Your task to perform on an android device: Go to Wikipedia Image 0: 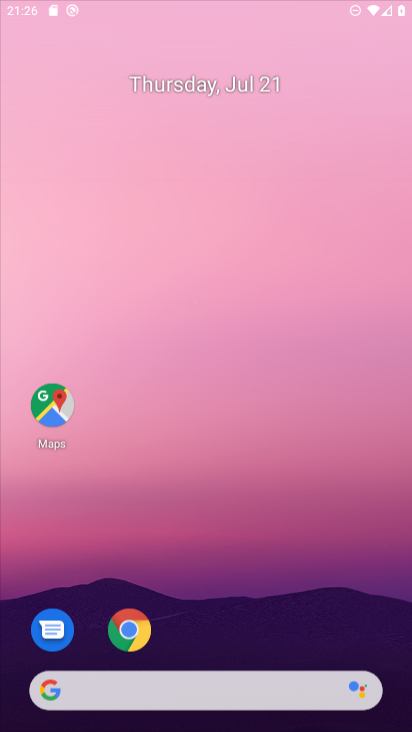
Step 0: drag from (334, 561) to (326, 54)
Your task to perform on an android device: Go to Wikipedia Image 1: 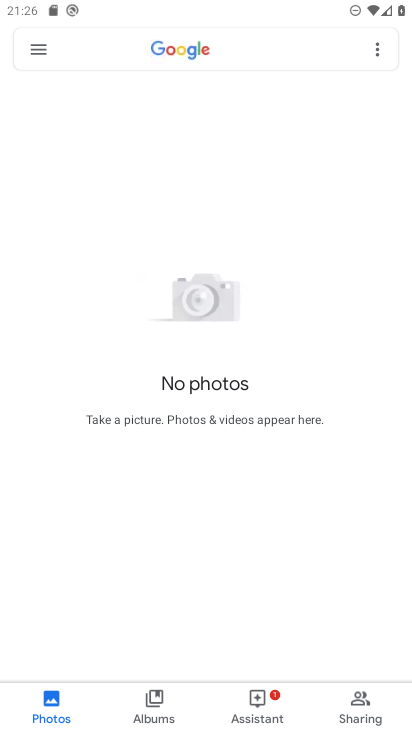
Step 1: press home button
Your task to perform on an android device: Go to Wikipedia Image 2: 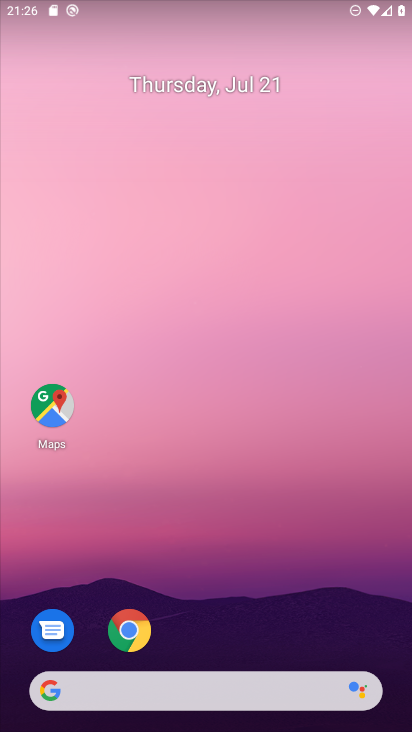
Step 2: click (125, 626)
Your task to perform on an android device: Go to Wikipedia Image 3: 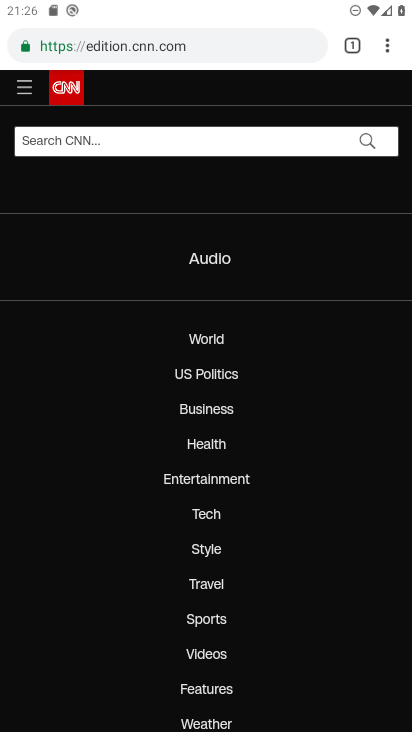
Step 3: click (228, 53)
Your task to perform on an android device: Go to Wikipedia Image 4: 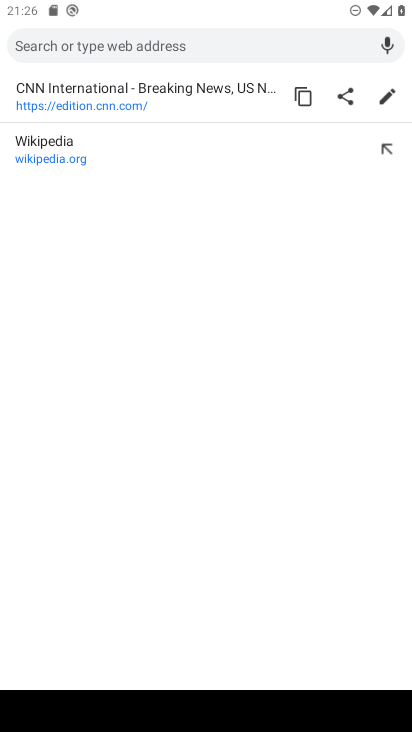
Step 4: type "wikipdeia"
Your task to perform on an android device: Go to Wikipedia Image 5: 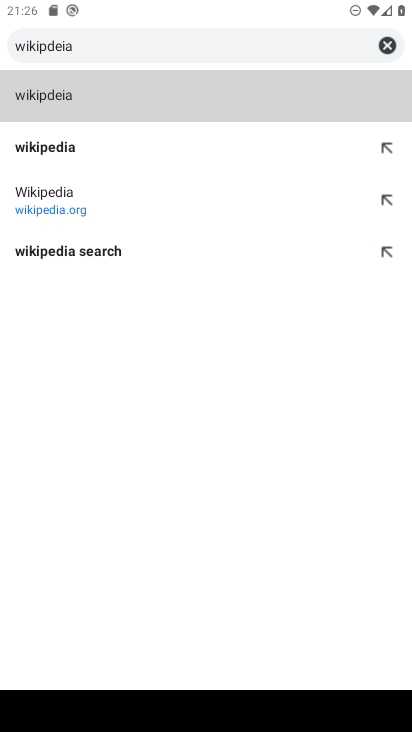
Step 5: type "3"
Your task to perform on an android device: Go to Wikipedia Image 6: 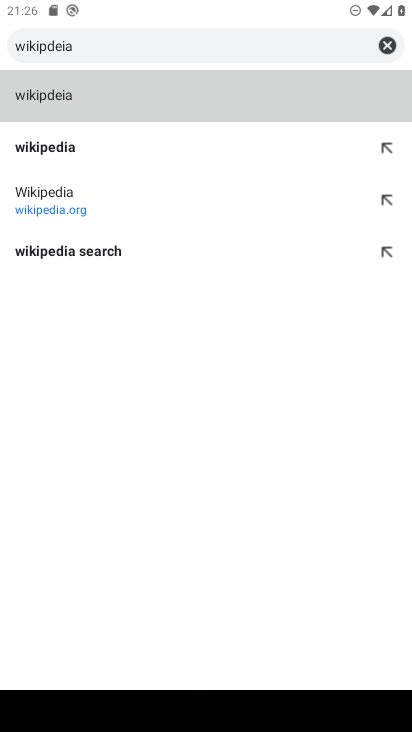
Step 6: click (69, 209)
Your task to perform on an android device: Go to Wikipedia Image 7: 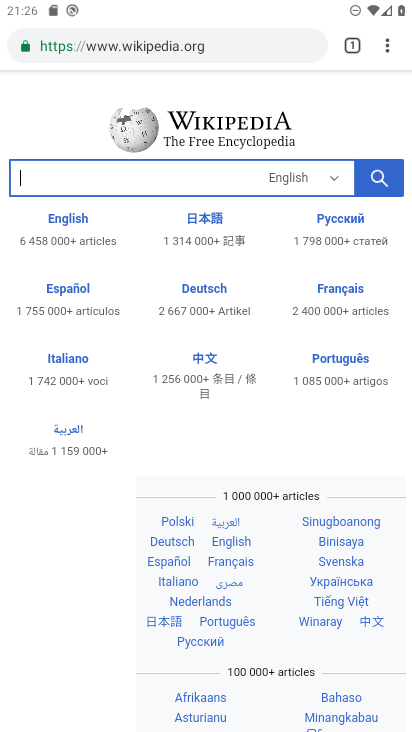
Step 7: task complete